Your task to perform on an android device: see tabs open on other devices in the chrome app Image 0: 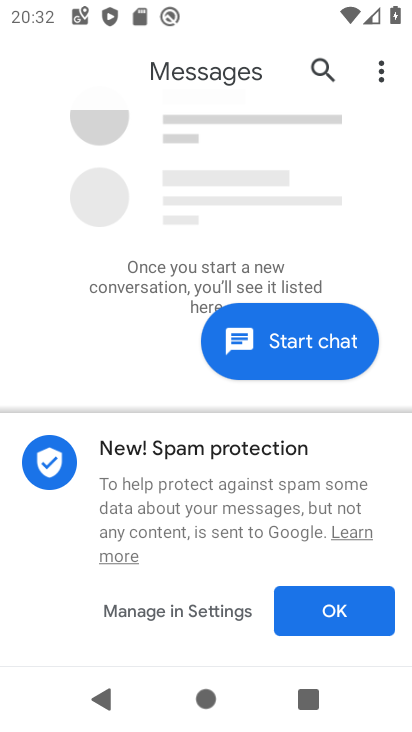
Step 0: press home button
Your task to perform on an android device: see tabs open on other devices in the chrome app Image 1: 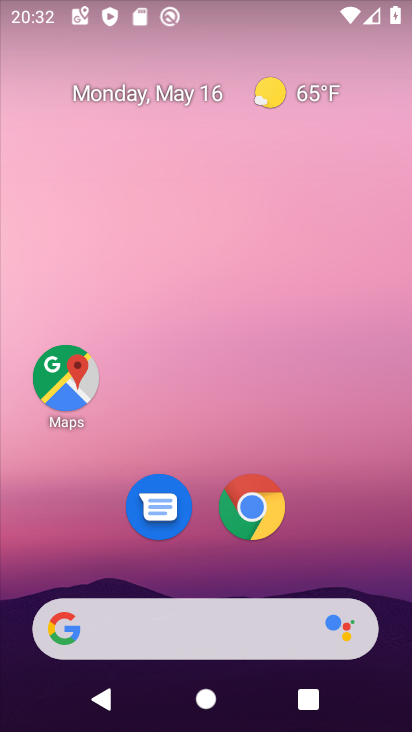
Step 1: drag from (258, 602) to (220, 44)
Your task to perform on an android device: see tabs open on other devices in the chrome app Image 2: 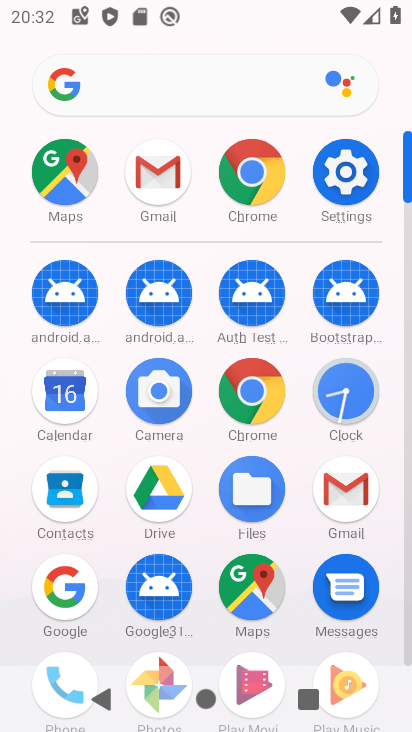
Step 2: click (239, 389)
Your task to perform on an android device: see tabs open on other devices in the chrome app Image 3: 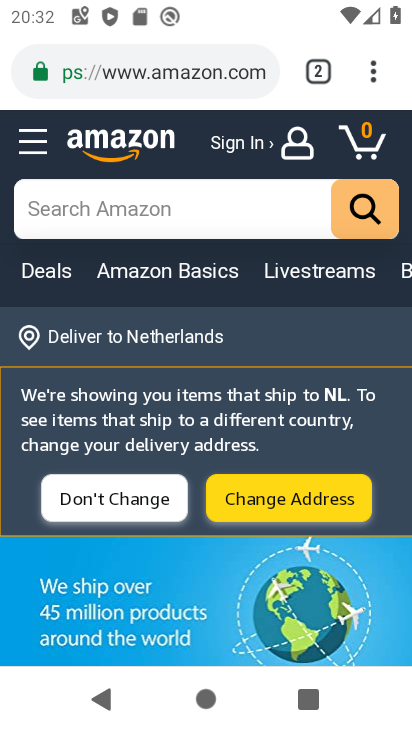
Step 3: click (325, 79)
Your task to perform on an android device: see tabs open on other devices in the chrome app Image 4: 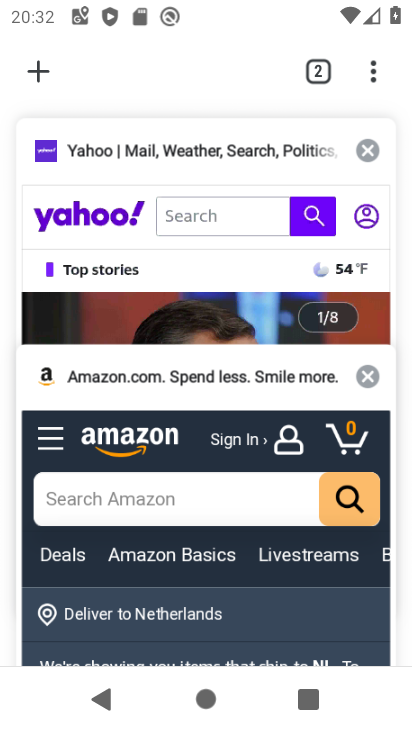
Step 4: task complete